Your task to perform on an android device: Go to sound settings Image 0: 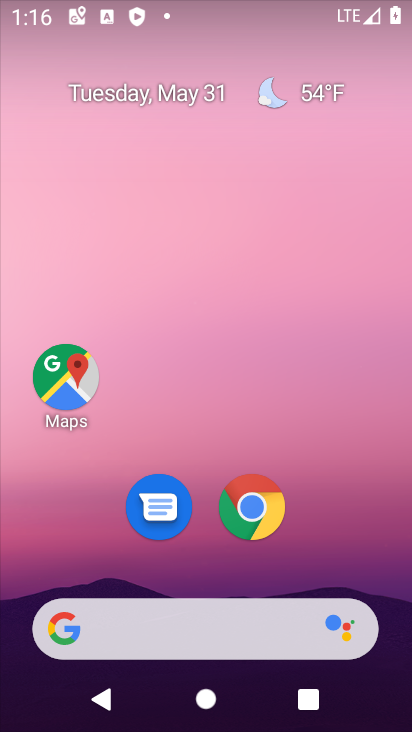
Step 0: drag from (383, 658) to (304, 47)
Your task to perform on an android device: Go to sound settings Image 1: 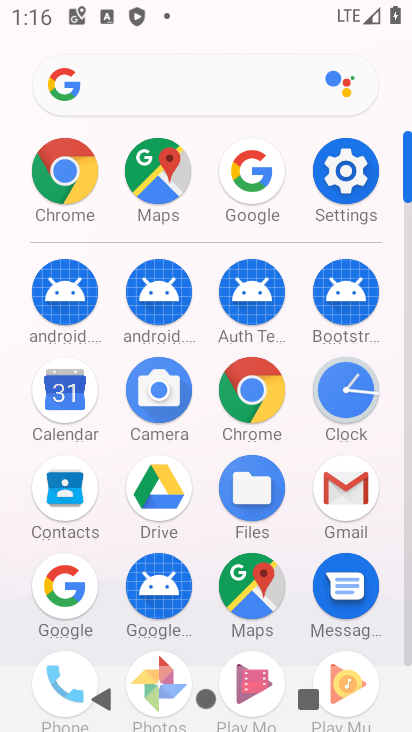
Step 1: click (359, 178)
Your task to perform on an android device: Go to sound settings Image 2: 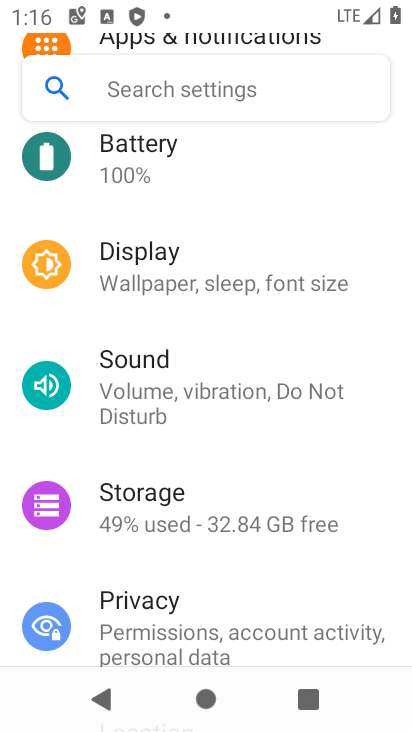
Step 2: click (134, 416)
Your task to perform on an android device: Go to sound settings Image 3: 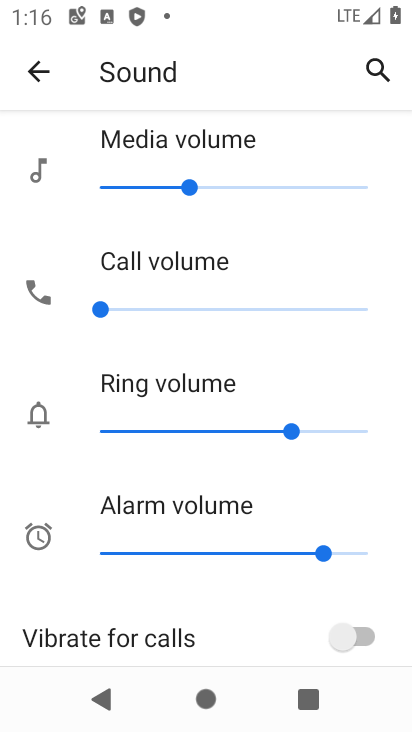
Step 3: task complete